Your task to perform on an android device: toggle javascript in the chrome app Image 0: 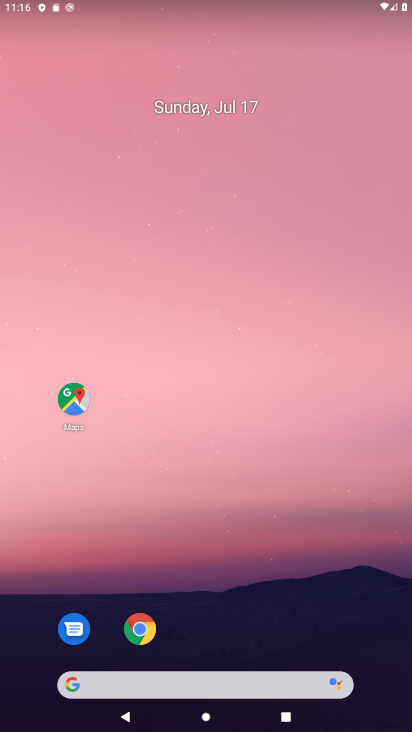
Step 0: press home button
Your task to perform on an android device: toggle javascript in the chrome app Image 1: 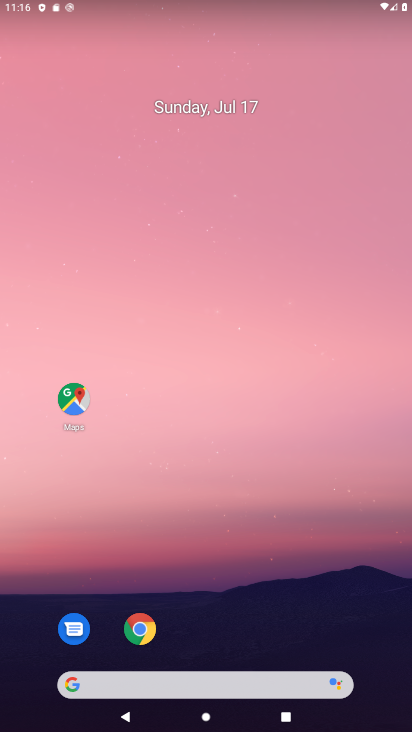
Step 1: click (155, 634)
Your task to perform on an android device: toggle javascript in the chrome app Image 2: 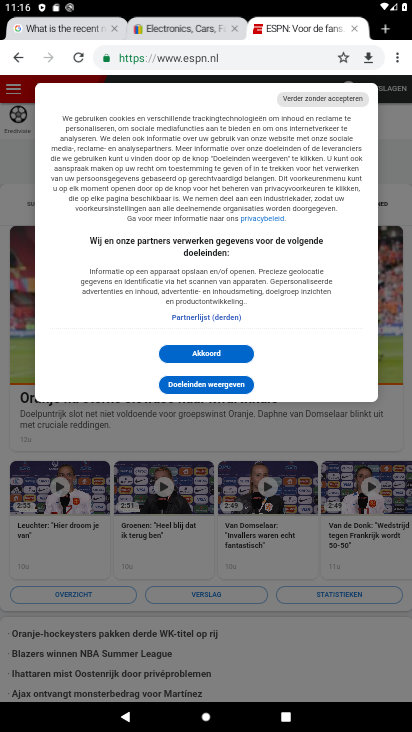
Step 2: drag from (395, 59) to (302, 405)
Your task to perform on an android device: toggle javascript in the chrome app Image 3: 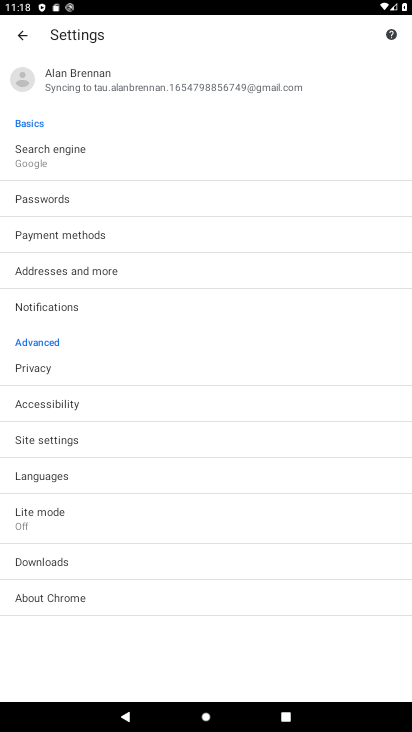
Step 3: click (48, 452)
Your task to perform on an android device: toggle javascript in the chrome app Image 4: 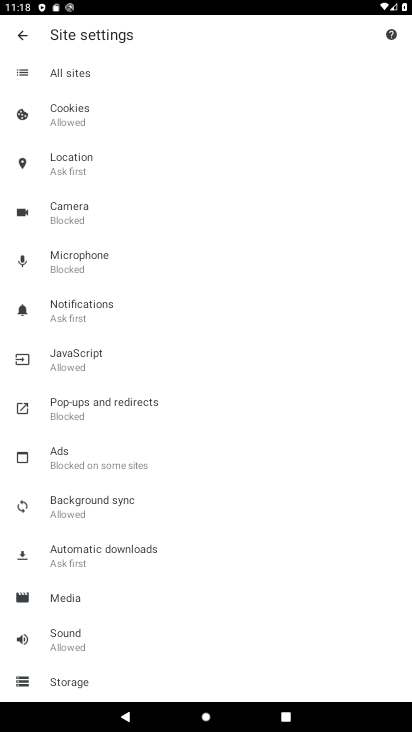
Step 4: click (72, 369)
Your task to perform on an android device: toggle javascript in the chrome app Image 5: 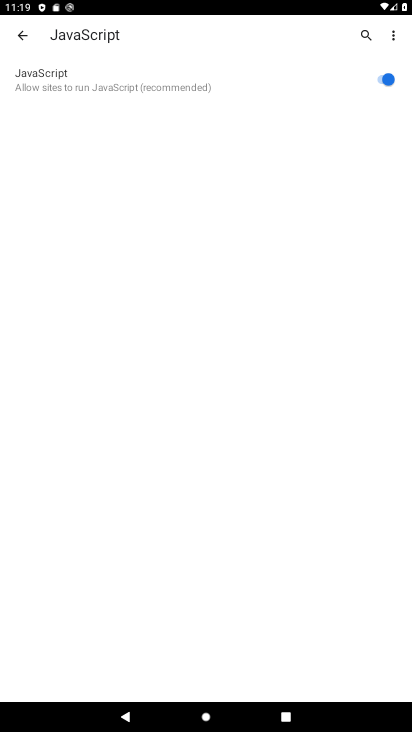
Step 5: click (192, 87)
Your task to perform on an android device: toggle javascript in the chrome app Image 6: 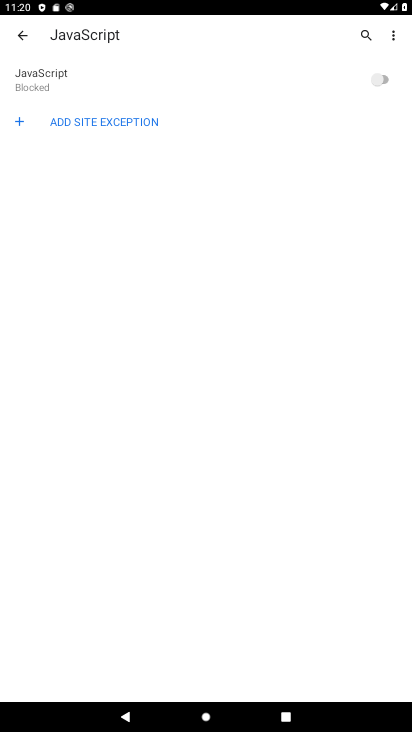
Step 6: task complete